Your task to perform on an android device: empty trash in google photos Image 0: 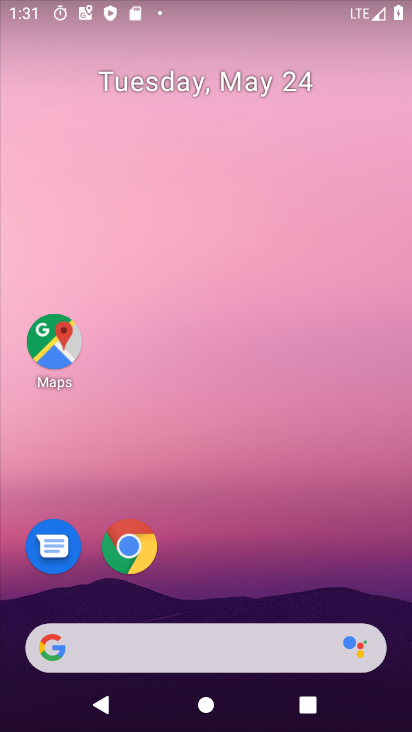
Step 0: drag from (140, 578) to (238, 111)
Your task to perform on an android device: empty trash in google photos Image 1: 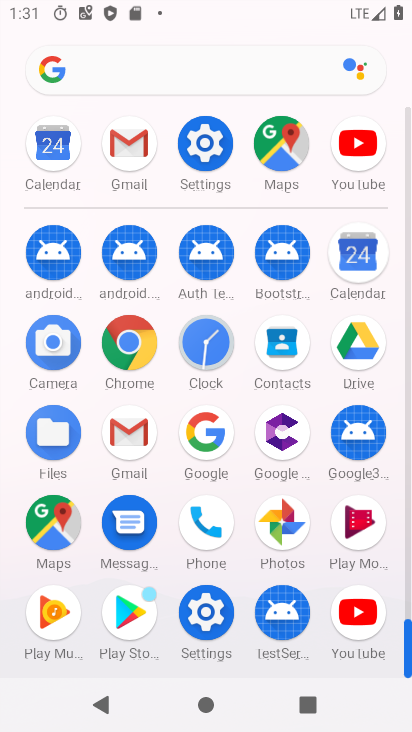
Step 1: click (265, 512)
Your task to perform on an android device: empty trash in google photos Image 2: 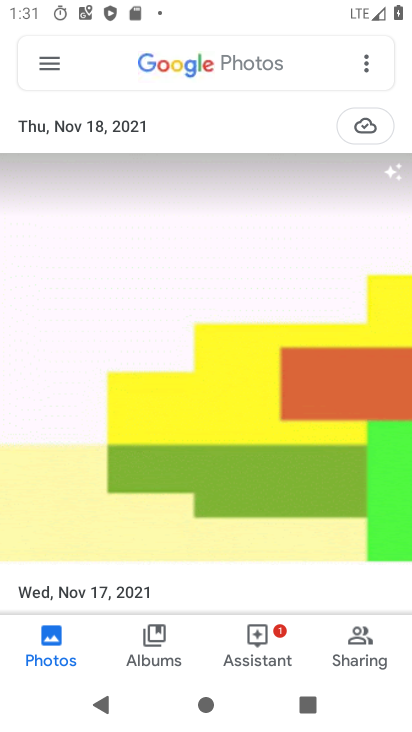
Step 2: click (340, 656)
Your task to perform on an android device: empty trash in google photos Image 3: 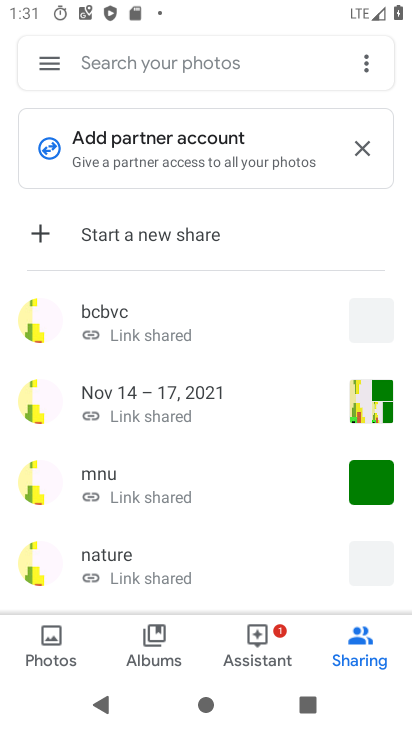
Step 3: click (36, 657)
Your task to perform on an android device: empty trash in google photos Image 4: 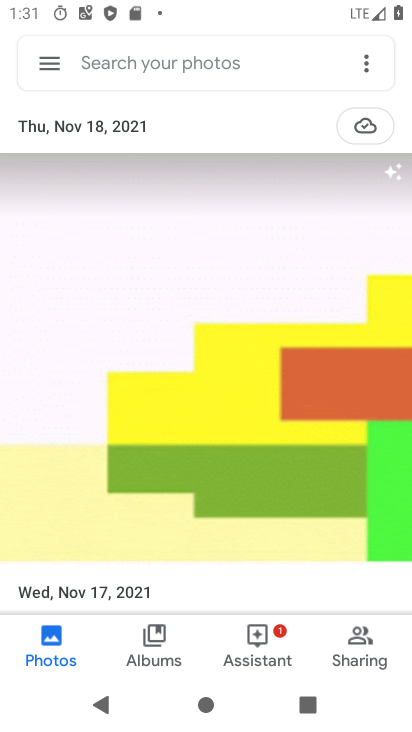
Step 4: click (50, 65)
Your task to perform on an android device: empty trash in google photos Image 5: 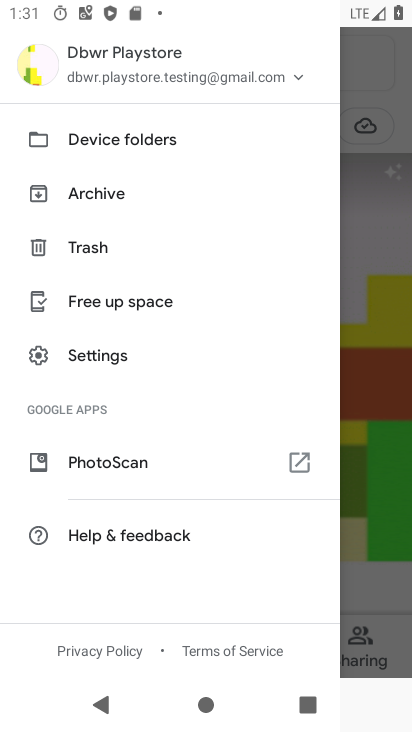
Step 5: click (106, 246)
Your task to perform on an android device: empty trash in google photos Image 6: 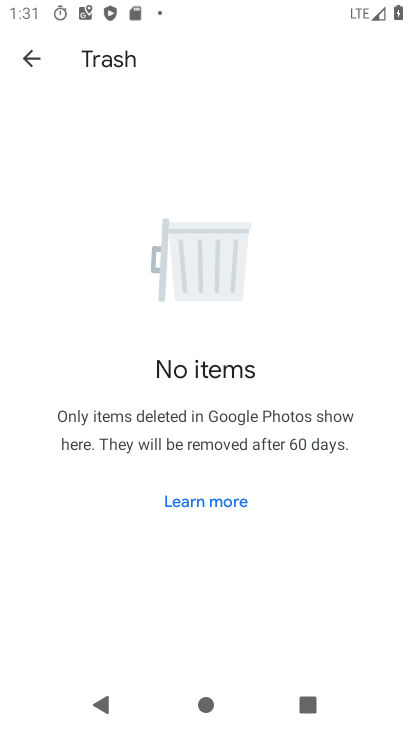
Step 6: task complete